Your task to perform on an android device: check google app version Image 0: 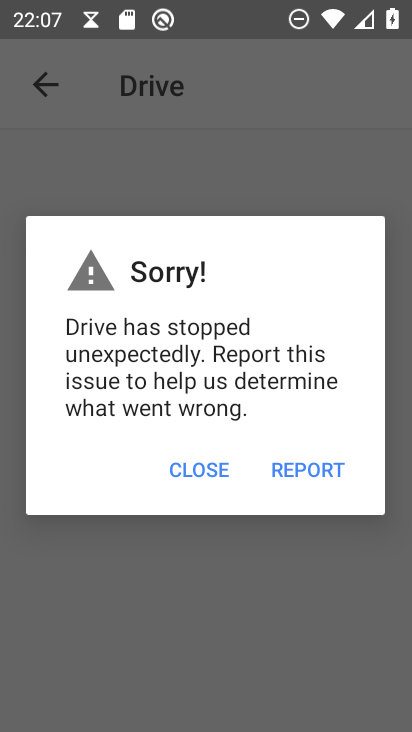
Step 0: drag from (207, 635) to (318, 127)
Your task to perform on an android device: check google app version Image 1: 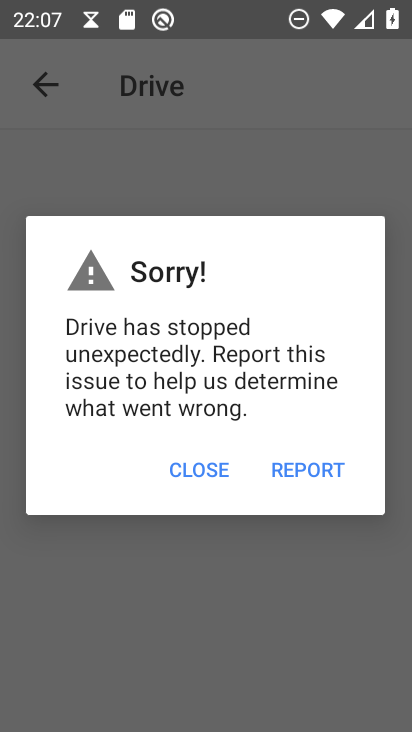
Step 1: press home button
Your task to perform on an android device: check google app version Image 2: 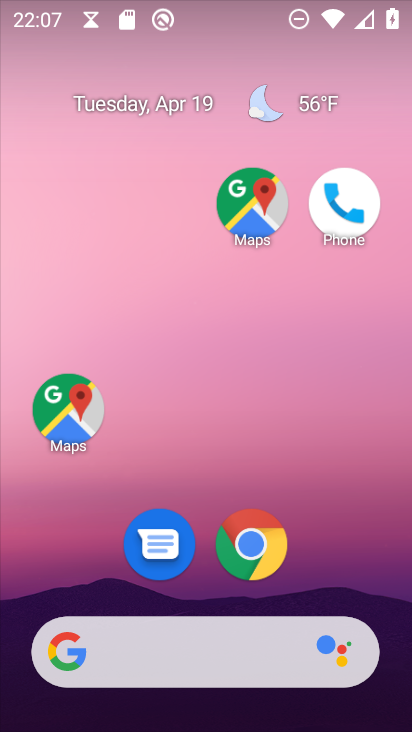
Step 2: drag from (203, 613) to (312, 41)
Your task to perform on an android device: check google app version Image 3: 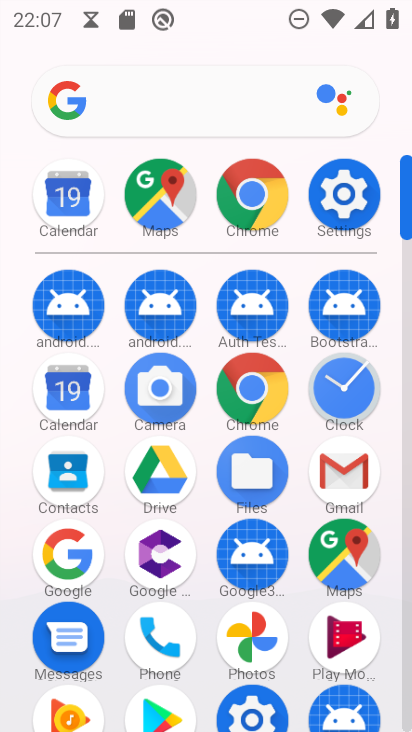
Step 3: click (75, 564)
Your task to perform on an android device: check google app version Image 4: 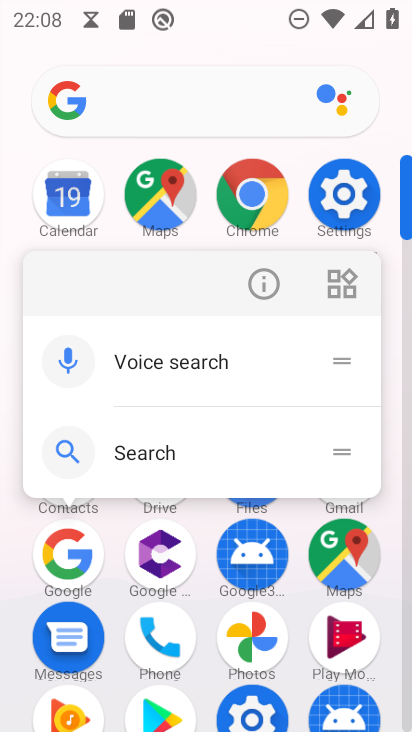
Step 4: click (267, 283)
Your task to perform on an android device: check google app version Image 5: 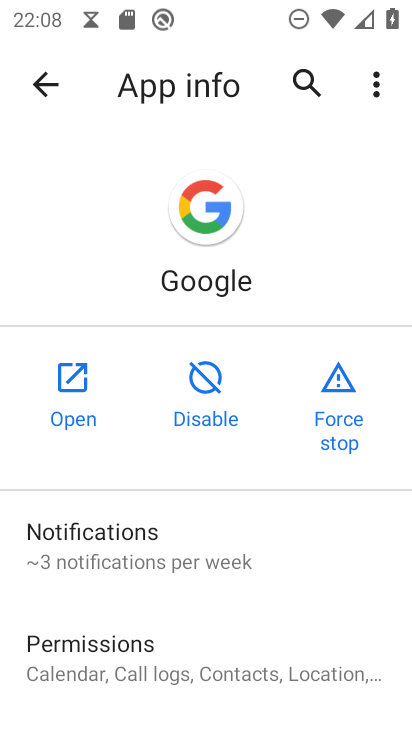
Step 5: drag from (184, 641) to (360, 45)
Your task to perform on an android device: check google app version Image 6: 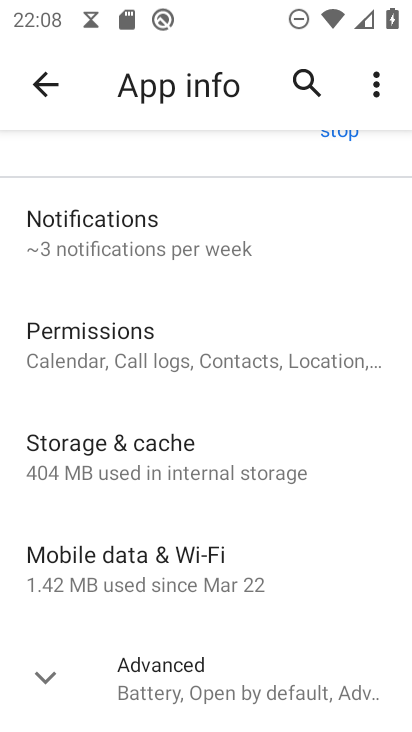
Step 6: click (97, 672)
Your task to perform on an android device: check google app version Image 7: 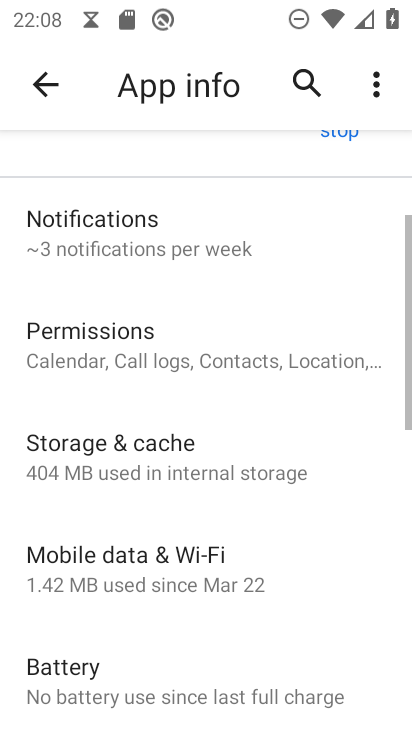
Step 7: task complete